Your task to perform on an android device: Show me productivity apps on the Play Store Image 0: 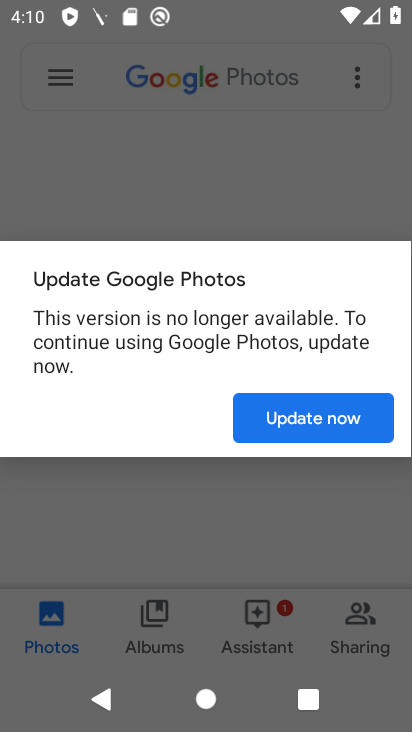
Step 0: press home button
Your task to perform on an android device: Show me productivity apps on the Play Store Image 1: 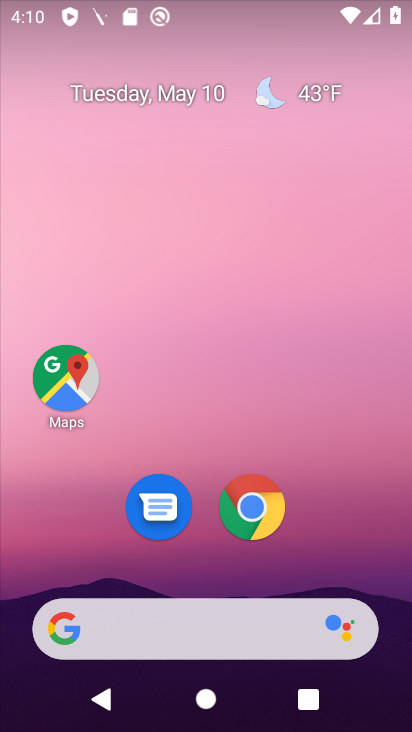
Step 1: drag from (255, 593) to (404, 163)
Your task to perform on an android device: Show me productivity apps on the Play Store Image 2: 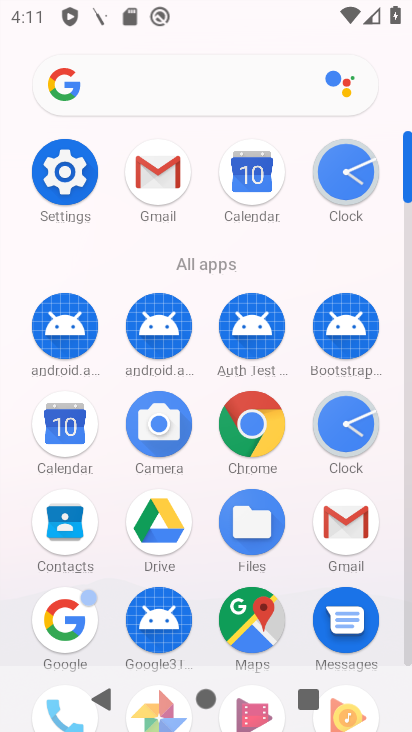
Step 2: drag from (208, 587) to (340, 188)
Your task to perform on an android device: Show me productivity apps on the Play Store Image 3: 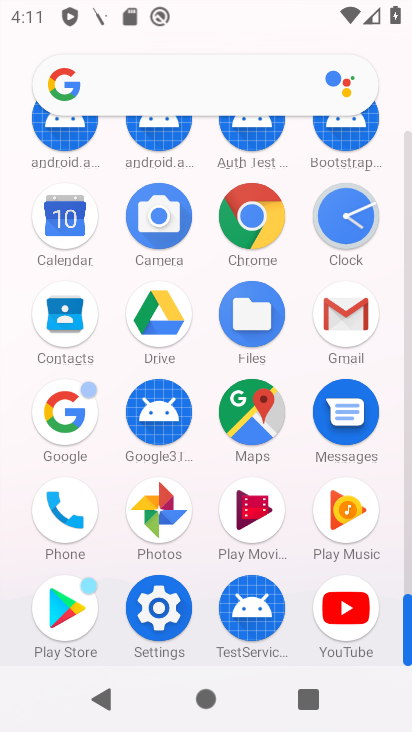
Step 3: click (62, 604)
Your task to perform on an android device: Show me productivity apps on the Play Store Image 4: 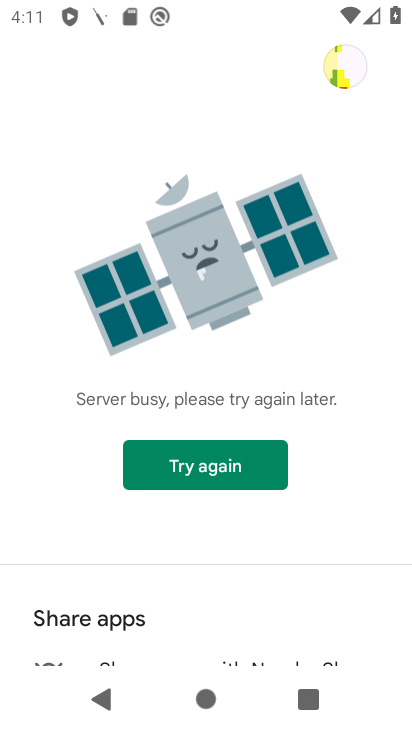
Step 4: click (209, 479)
Your task to perform on an android device: Show me productivity apps on the Play Store Image 5: 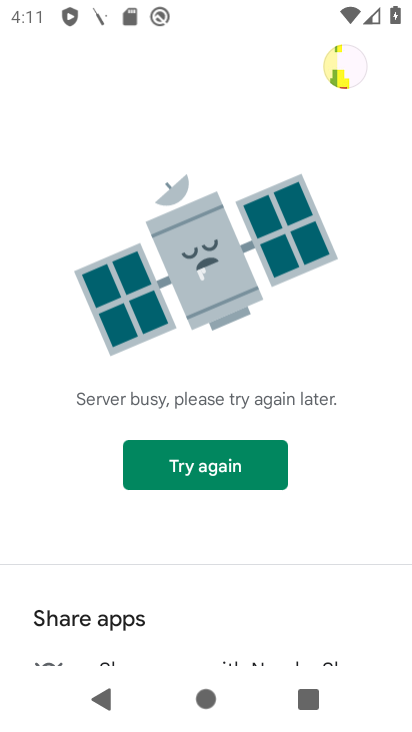
Step 5: task complete